Your task to perform on an android device: Go to Wikipedia Image 0: 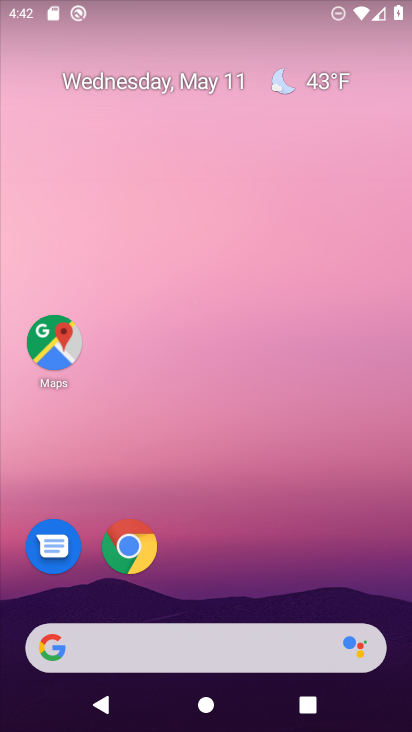
Step 0: click (130, 552)
Your task to perform on an android device: Go to Wikipedia Image 1: 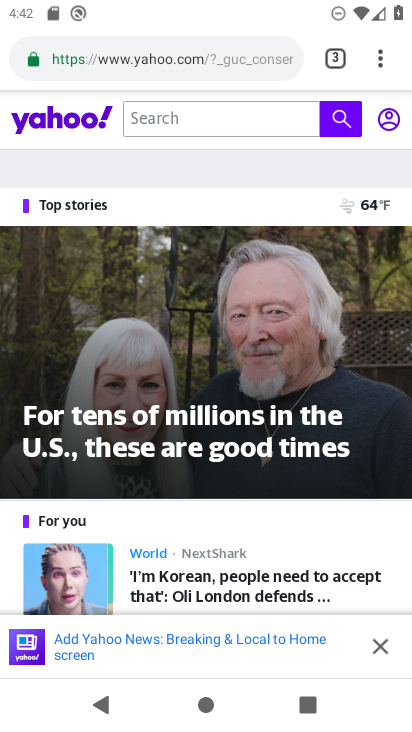
Step 1: click (327, 53)
Your task to perform on an android device: Go to Wikipedia Image 2: 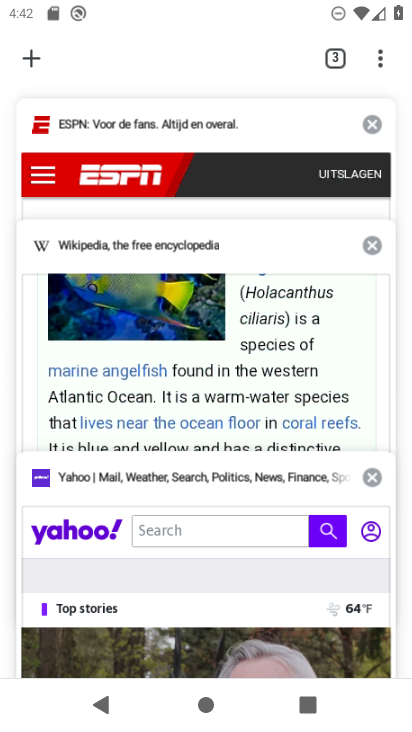
Step 2: click (151, 361)
Your task to perform on an android device: Go to Wikipedia Image 3: 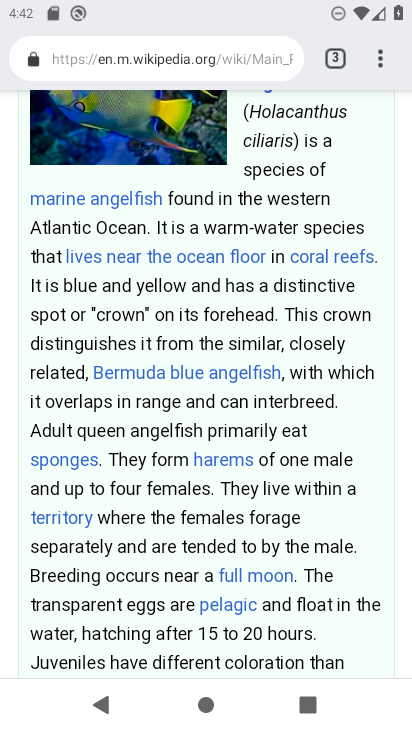
Step 3: task complete